Your task to perform on an android device: Open accessibility settings Image 0: 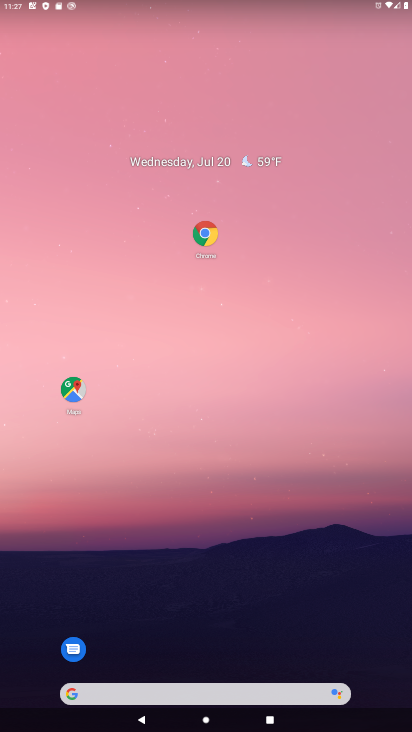
Step 0: drag from (273, 629) to (275, 54)
Your task to perform on an android device: Open accessibility settings Image 1: 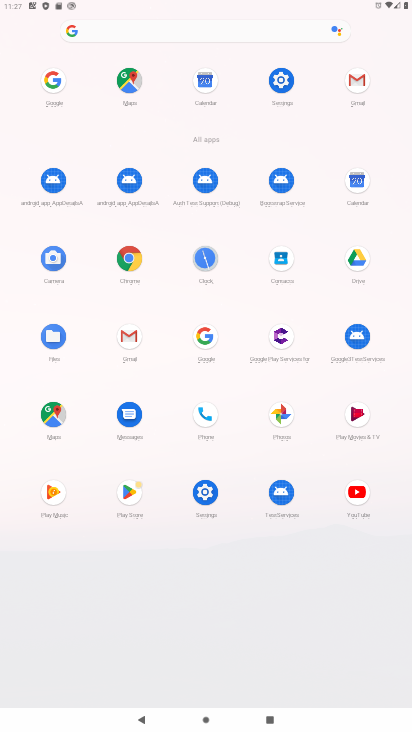
Step 1: click (285, 73)
Your task to perform on an android device: Open accessibility settings Image 2: 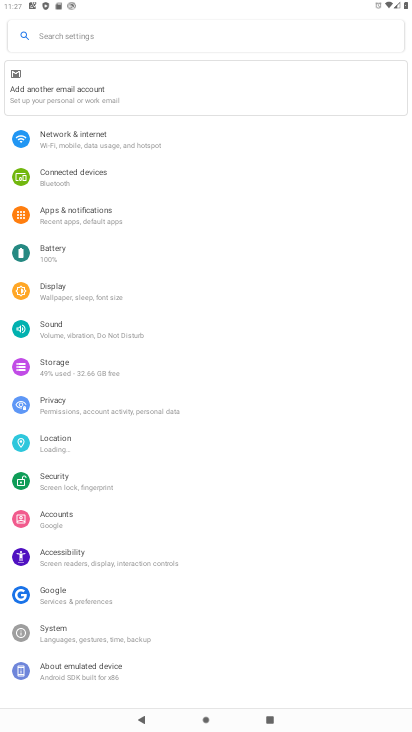
Step 2: click (68, 559)
Your task to perform on an android device: Open accessibility settings Image 3: 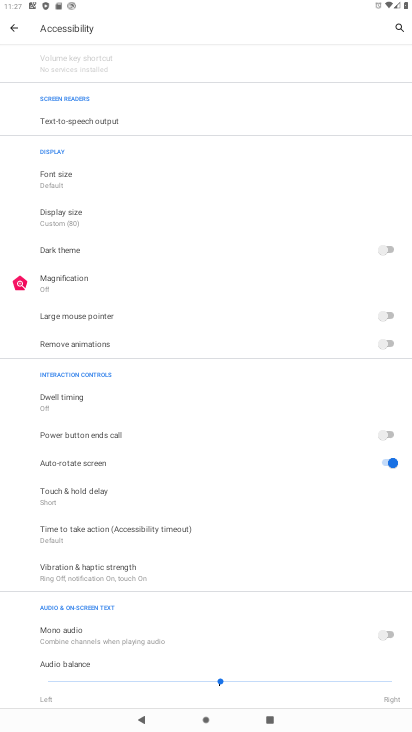
Step 3: task complete